Your task to perform on an android device: change text size in settings app Image 0: 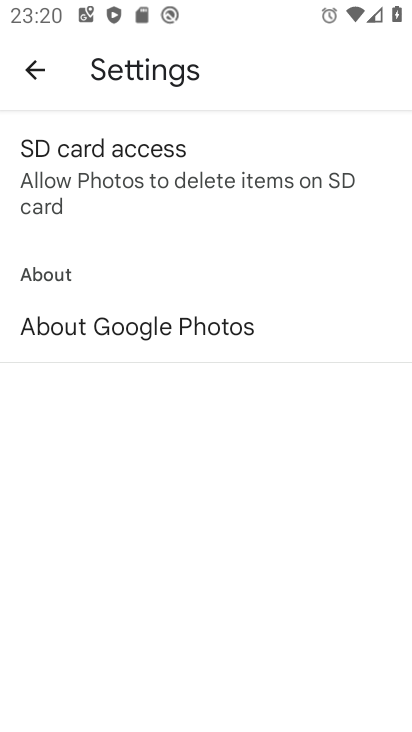
Step 0: press home button
Your task to perform on an android device: change text size in settings app Image 1: 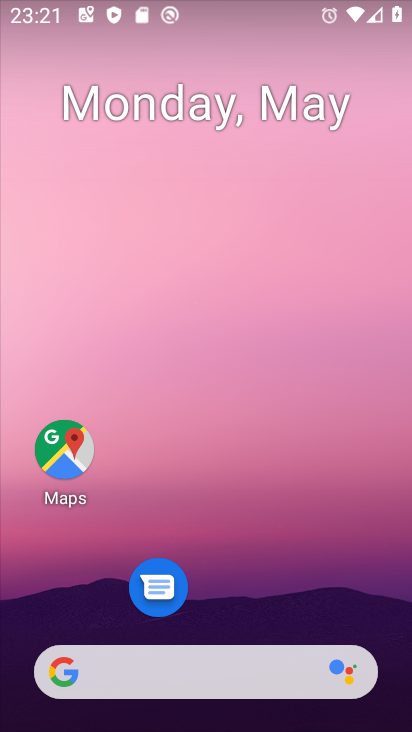
Step 1: drag from (209, 635) to (405, 513)
Your task to perform on an android device: change text size in settings app Image 2: 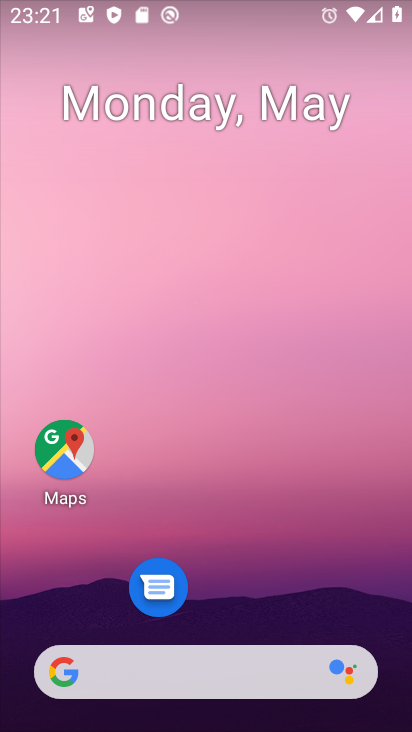
Step 2: drag from (216, 633) to (211, 235)
Your task to perform on an android device: change text size in settings app Image 3: 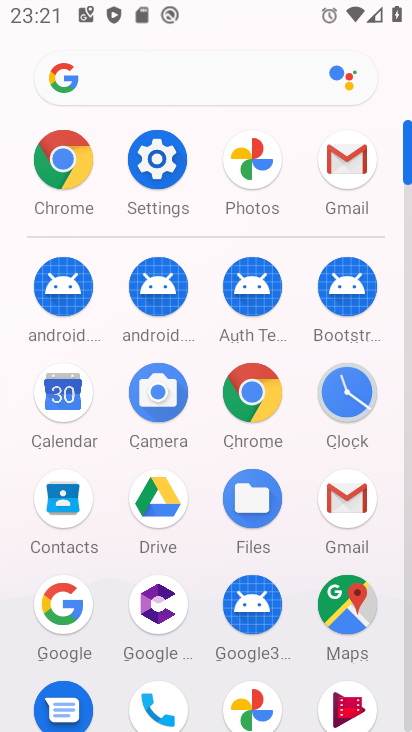
Step 3: click (161, 153)
Your task to perform on an android device: change text size in settings app Image 4: 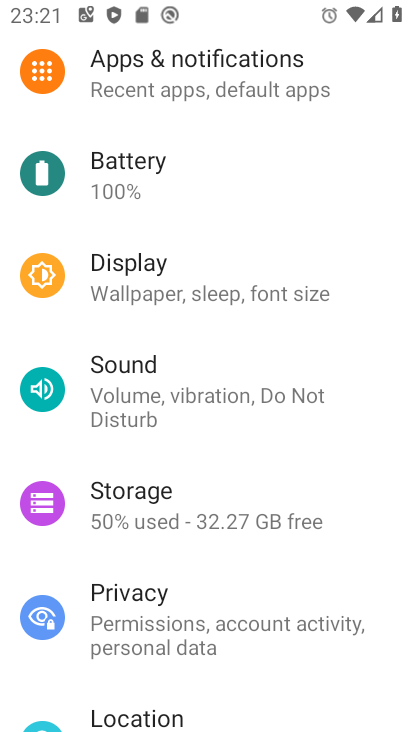
Step 4: click (143, 263)
Your task to perform on an android device: change text size in settings app Image 5: 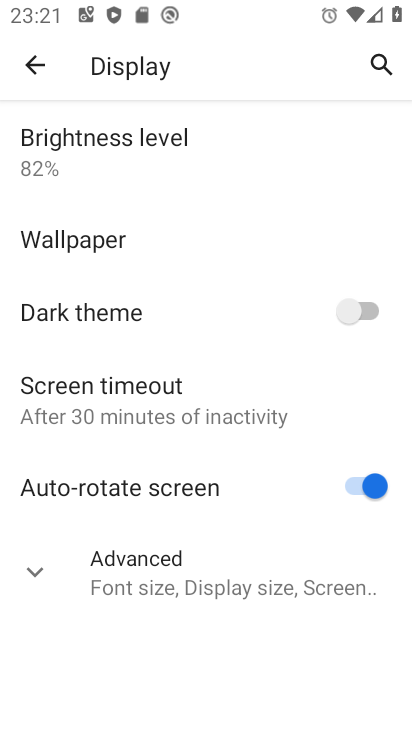
Step 5: click (155, 567)
Your task to perform on an android device: change text size in settings app Image 6: 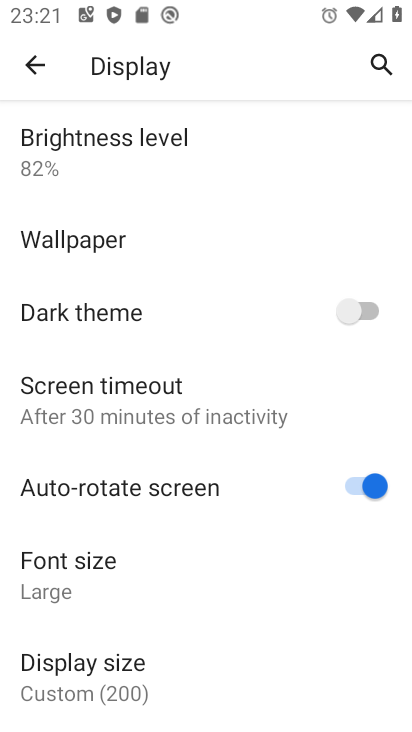
Step 6: click (59, 576)
Your task to perform on an android device: change text size in settings app Image 7: 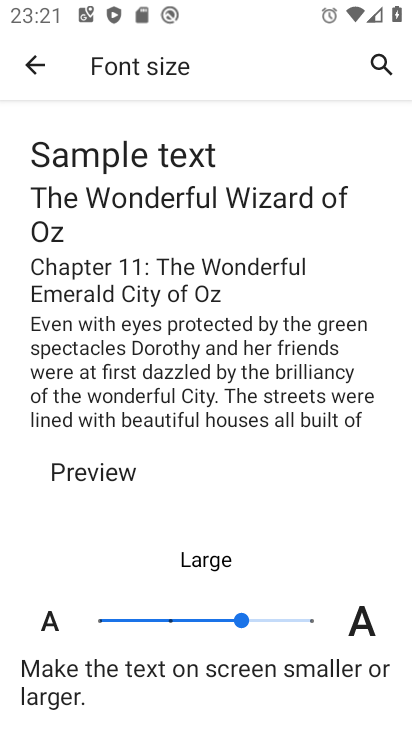
Step 7: click (155, 619)
Your task to perform on an android device: change text size in settings app Image 8: 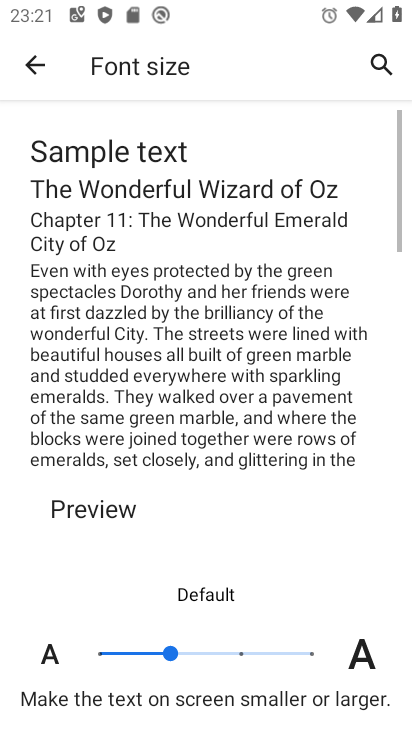
Step 8: task complete